Your task to perform on an android device: turn off wifi Image 0: 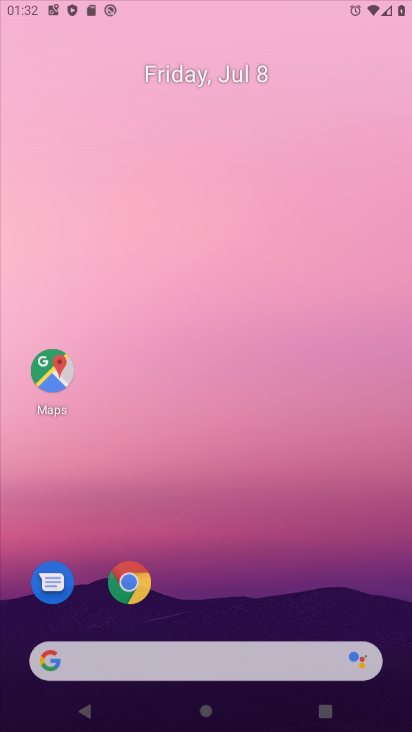
Step 0: drag from (193, 585) to (241, 37)
Your task to perform on an android device: turn off wifi Image 1: 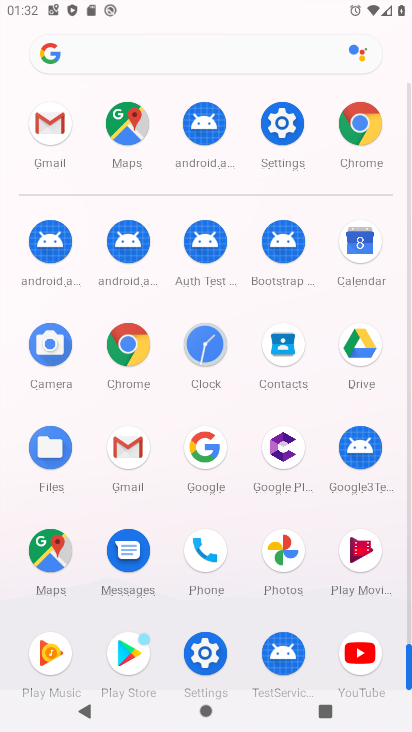
Step 1: click (289, 128)
Your task to perform on an android device: turn off wifi Image 2: 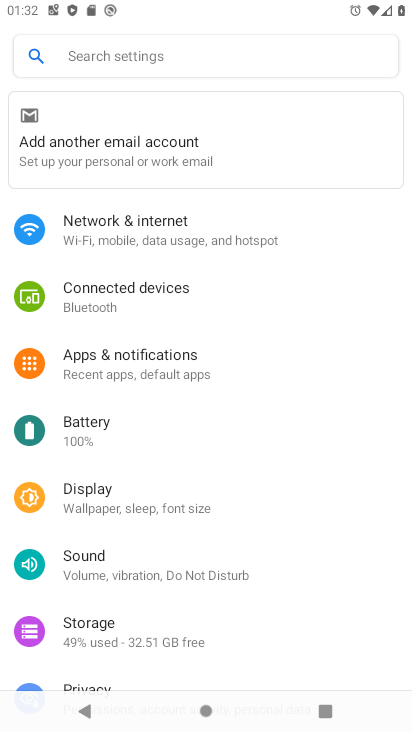
Step 2: click (131, 230)
Your task to perform on an android device: turn off wifi Image 3: 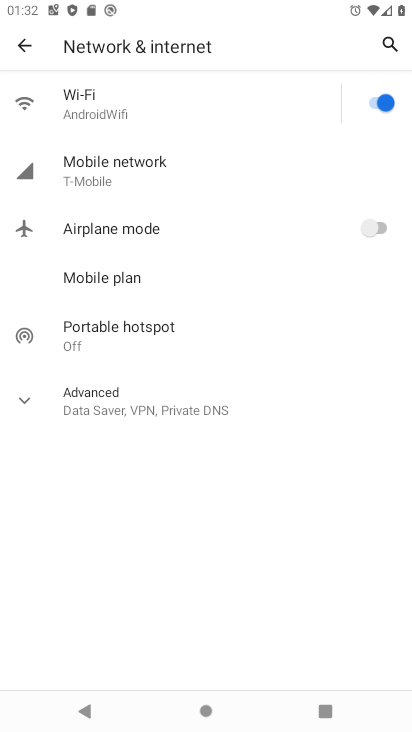
Step 3: click (150, 99)
Your task to perform on an android device: turn off wifi Image 4: 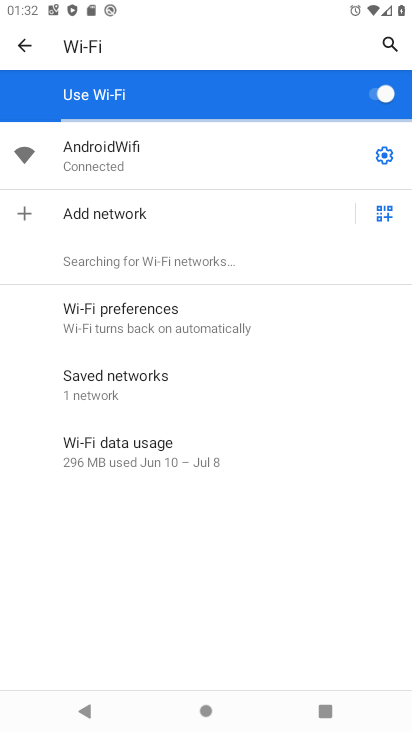
Step 4: click (377, 83)
Your task to perform on an android device: turn off wifi Image 5: 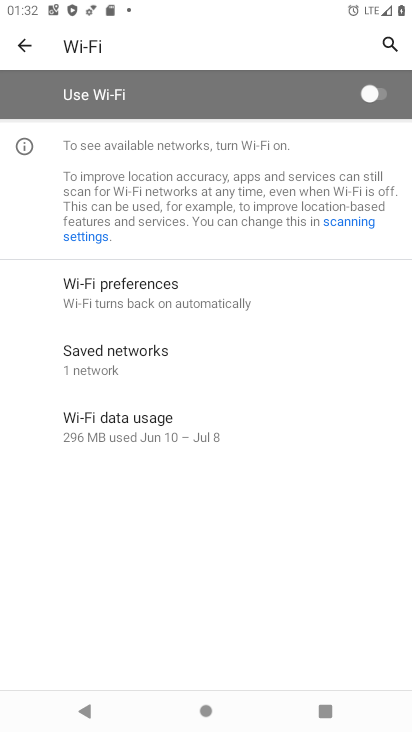
Step 5: task complete